Your task to perform on an android device: snooze an email in the gmail app Image 0: 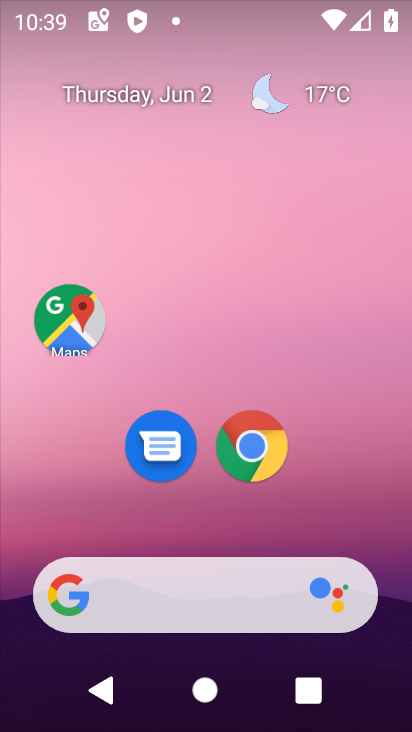
Step 0: press home button
Your task to perform on an android device: snooze an email in the gmail app Image 1: 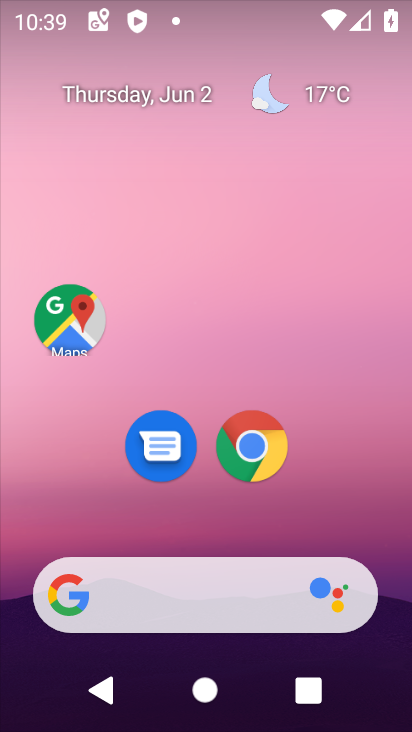
Step 1: drag from (309, 475) to (327, 215)
Your task to perform on an android device: snooze an email in the gmail app Image 2: 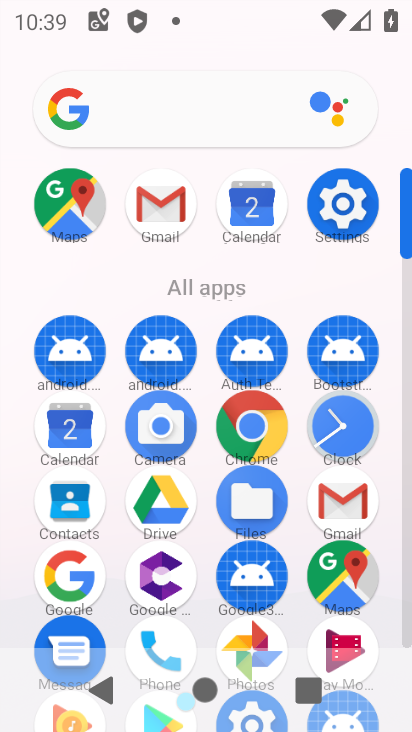
Step 2: click (152, 212)
Your task to perform on an android device: snooze an email in the gmail app Image 3: 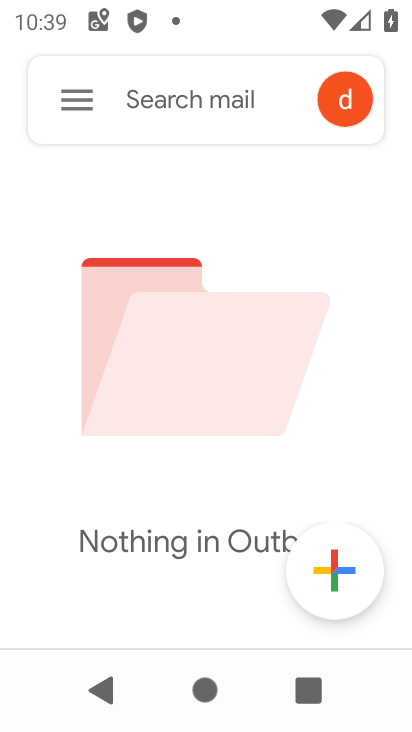
Step 3: click (71, 98)
Your task to perform on an android device: snooze an email in the gmail app Image 4: 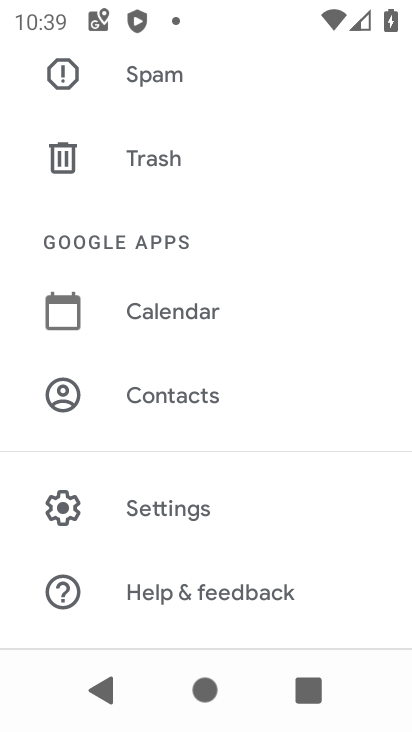
Step 4: drag from (208, 233) to (249, 171)
Your task to perform on an android device: snooze an email in the gmail app Image 5: 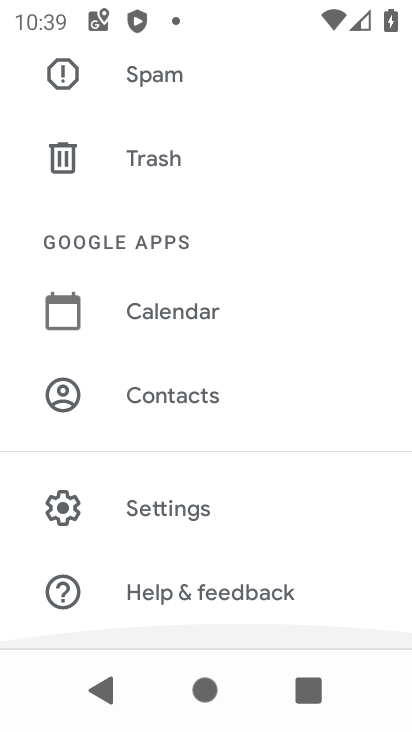
Step 5: drag from (249, 171) to (210, 729)
Your task to perform on an android device: snooze an email in the gmail app Image 6: 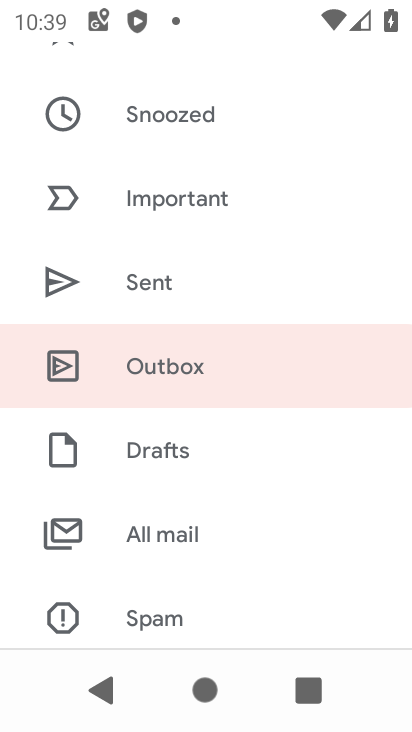
Step 6: click (189, 107)
Your task to perform on an android device: snooze an email in the gmail app Image 7: 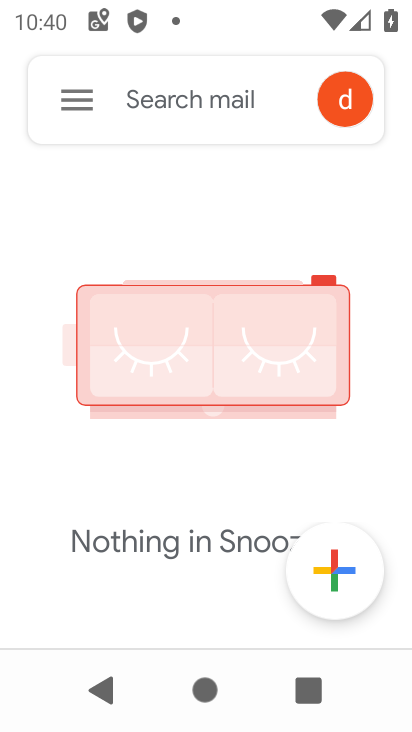
Step 7: task complete